Your task to perform on an android device: open a bookmark in the chrome app Image 0: 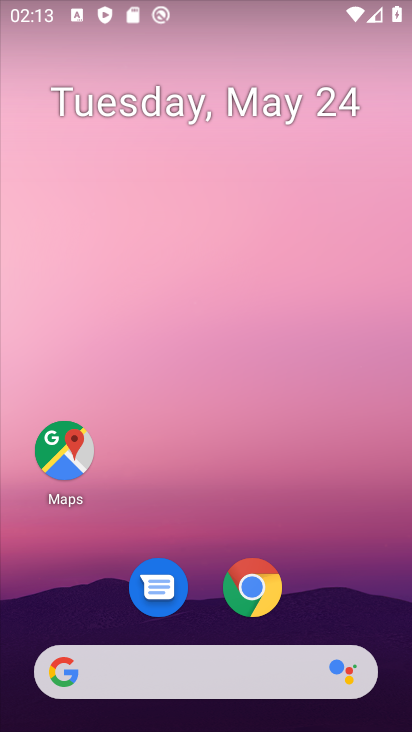
Step 0: click (243, 588)
Your task to perform on an android device: open a bookmark in the chrome app Image 1: 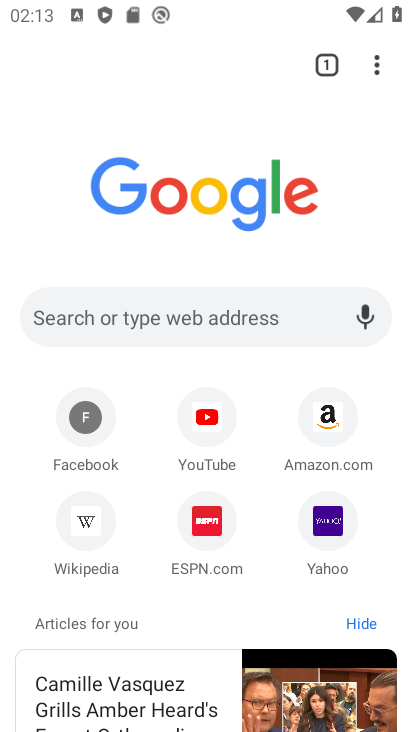
Step 1: click (380, 64)
Your task to perform on an android device: open a bookmark in the chrome app Image 2: 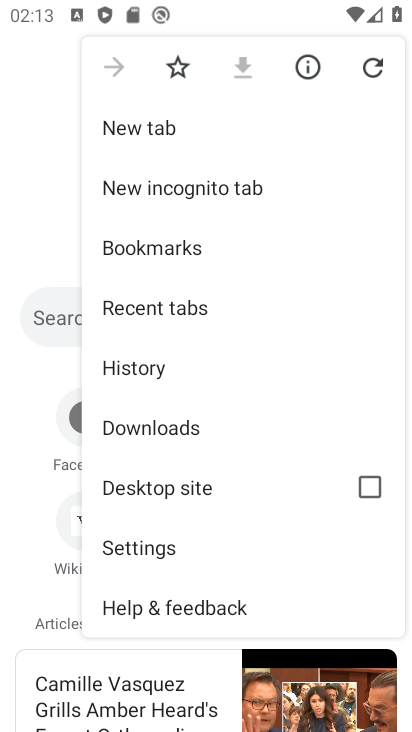
Step 2: click (223, 248)
Your task to perform on an android device: open a bookmark in the chrome app Image 3: 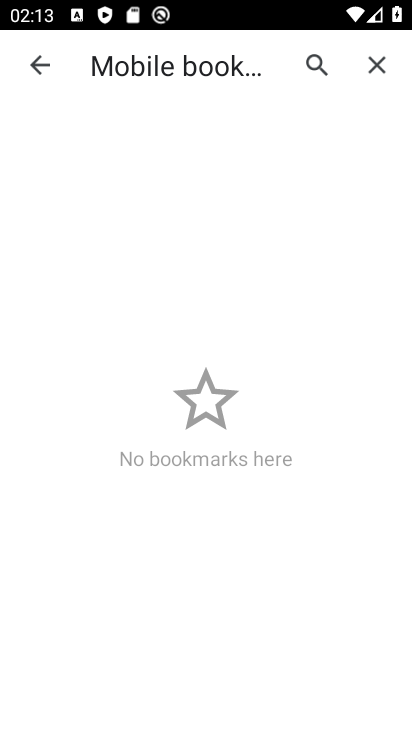
Step 3: task complete